Your task to perform on an android device: Open Yahoo.com Image 0: 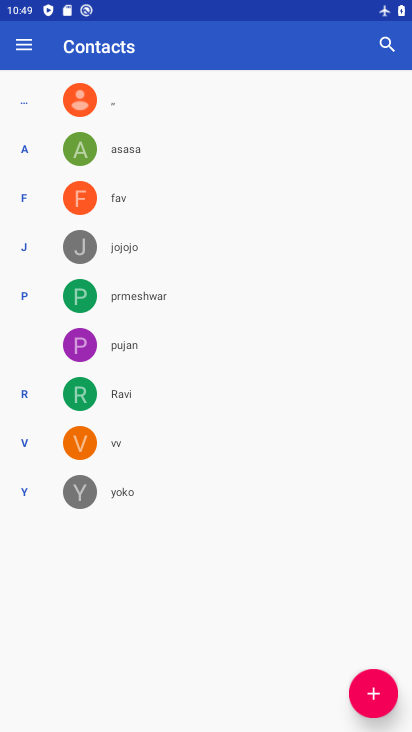
Step 0: press home button
Your task to perform on an android device: Open Yahoo.com Image 1: 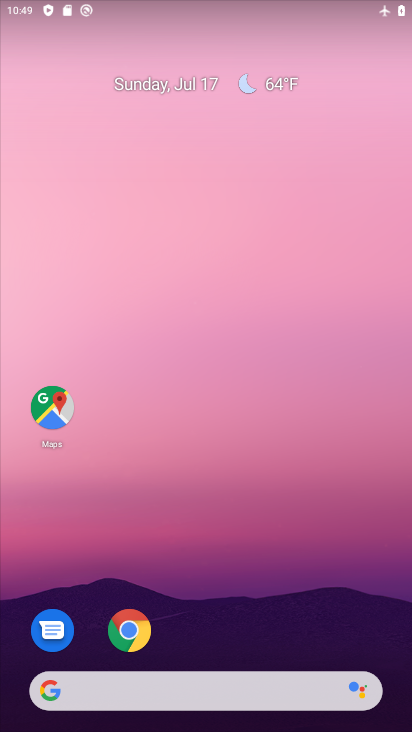
Step 1: click (126, 630)
Your task to perform on an android device: Open Yahoo.com Image 2: 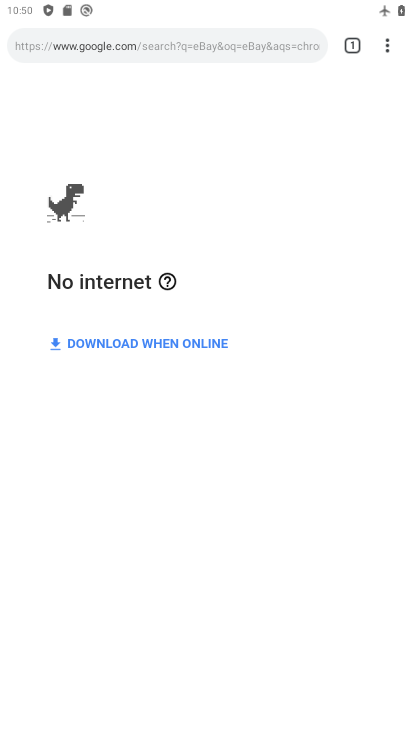
Step 2: click (161, 43)
Your task to perform on an android device: Open Yahoo.com Image 3: 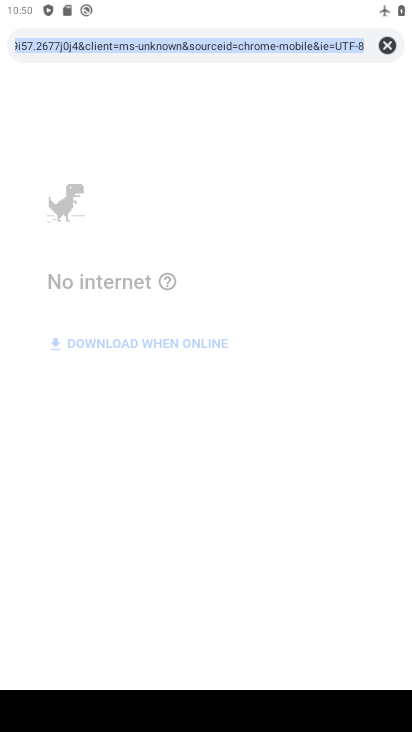
Step 3: click (389, 45)
Your task to perform on an android device: Open Yahoo.com Image 4: 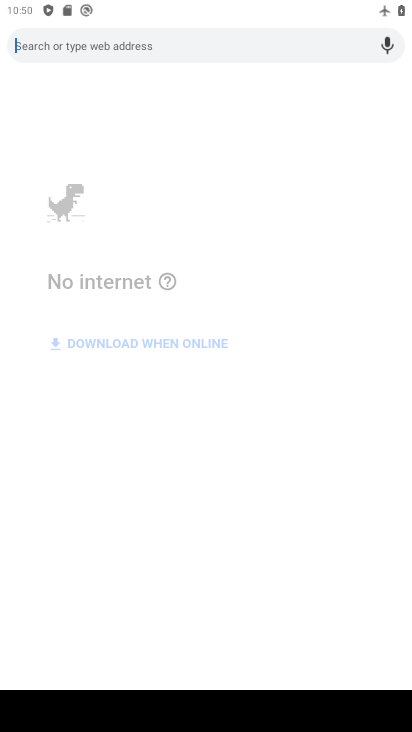
Step 4: type "yahoo.com"
Your task to perform on an android device: Open Yahoo.com Image 5: 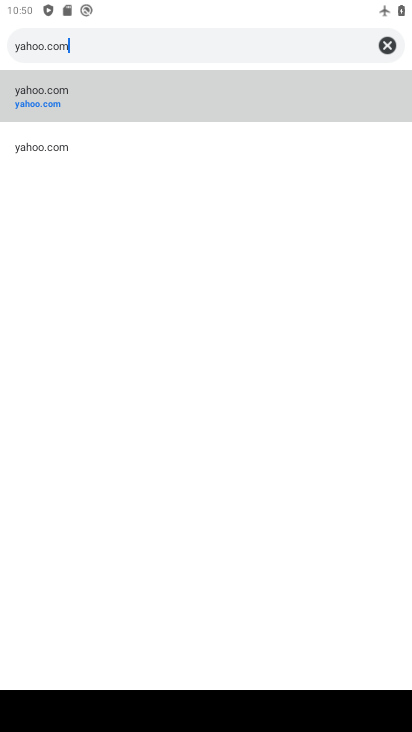
Step 5: click (41, 85)
Your task to perform on an android device: Open Yahoo.com Image 6: 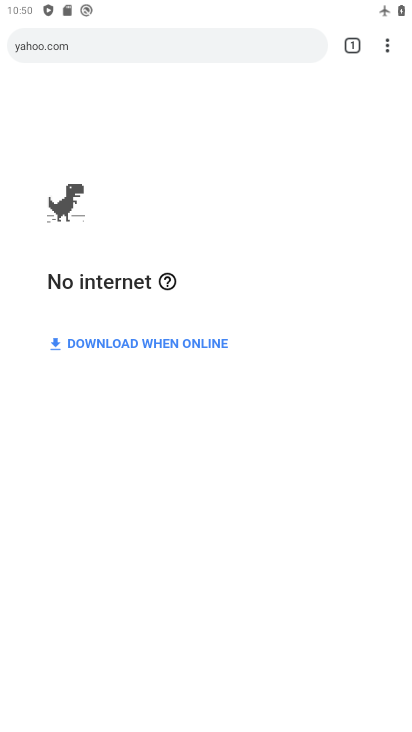
Step 6: task complete